Your task to perform on an android device: empty trash in the gmail app Image 0: 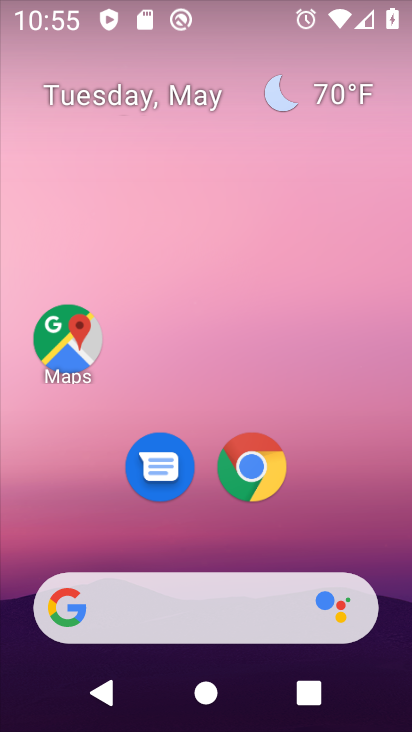
Step 0: drag from (101, 569) to (220, 83)
Your task to perform on an android device: empty trash in the gmail app Image 1: 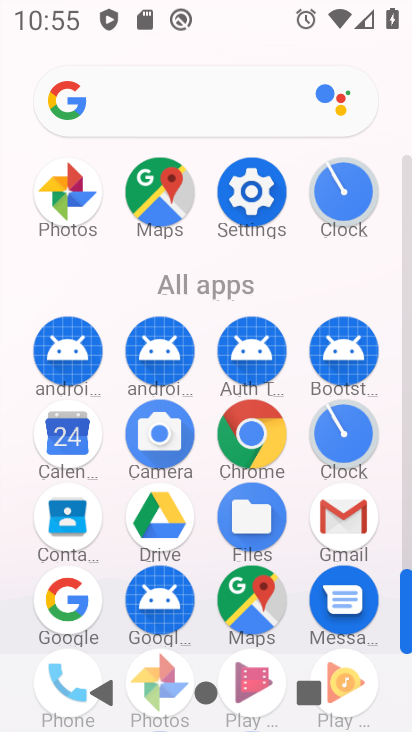
Step 1: click (327, 515)
Your task to perform on an android device: empty trash in the gmail app Image 2: 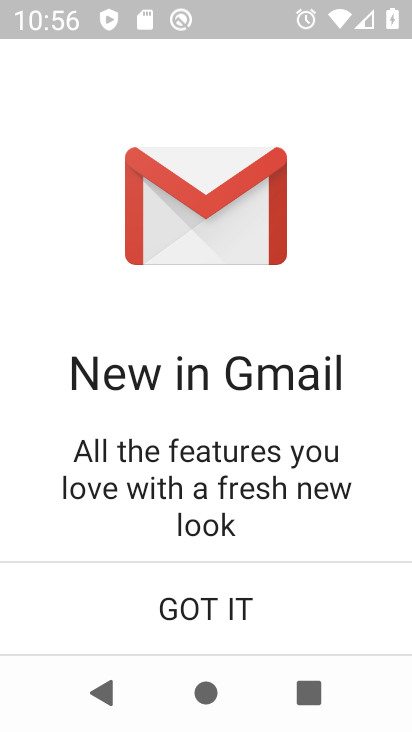
Step 2: click (227, 601)
Your task to perform on an android device: empty trash in the gmail app Image 3: 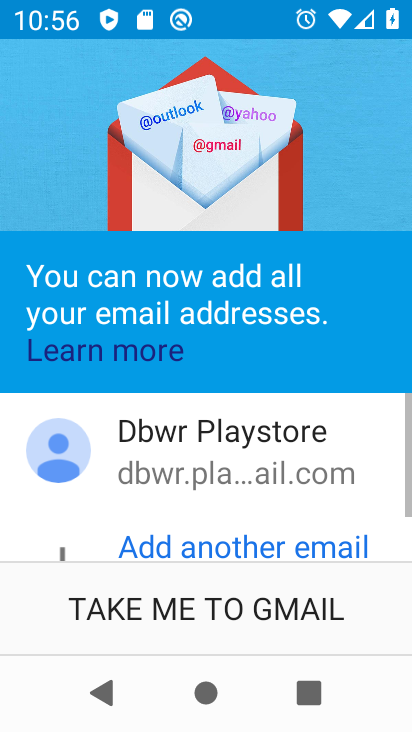
Step 3: click (227, 601)
Your task to perform on an android device: empty trash in the gmail app Image 4: 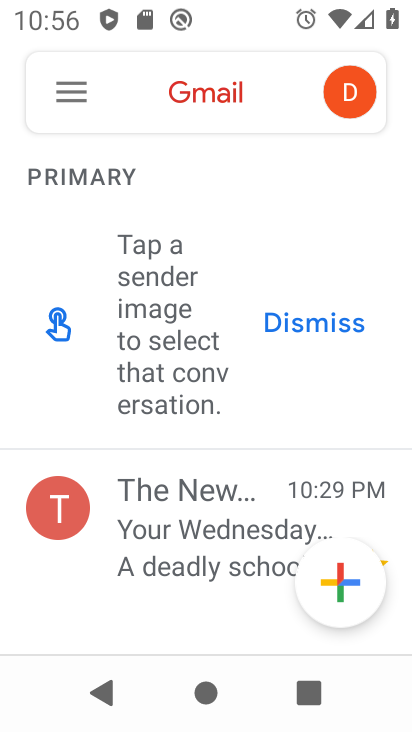
Step 4: click (95, 97)
Your task to perform on an android device: empty trash in the gmail app Image 5: 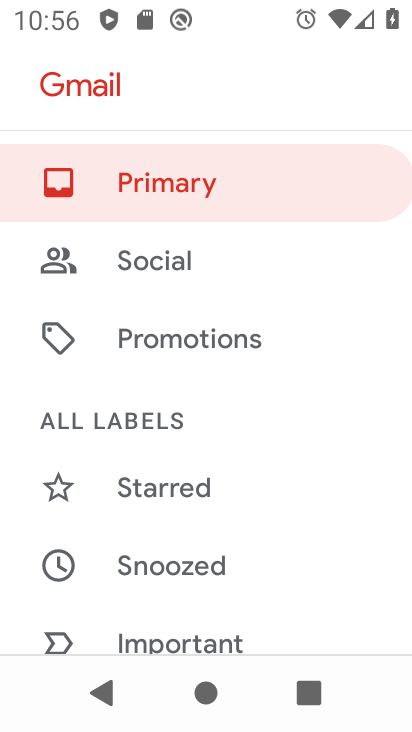
Step 5: drag from (167, 587) to (266, 175)
Your task to perform on an android device: empty trash in the gmail app Image 6: 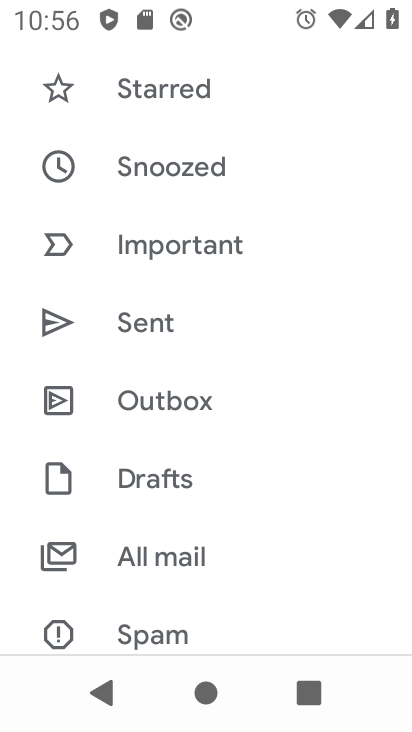
Step 6: drag from (187, 621) to (261, 324)
Your task to perform on an android device: empty trash in the gmail app Image 7: 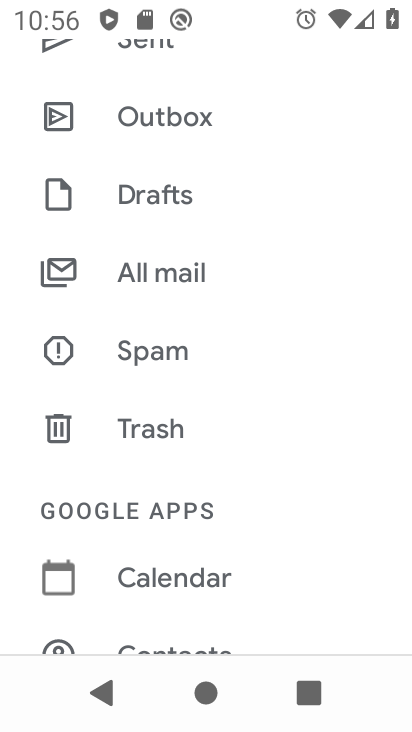
Step 7: click (201, 422)
Your task to perform on an android device: empty trash in the gmail app Image 8: 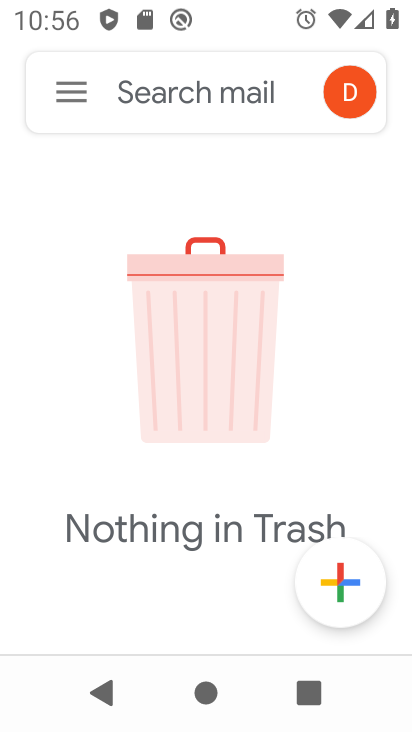
Step 8: task complete